Your task to perform on an android device: Go to Reddit.com Image 0: 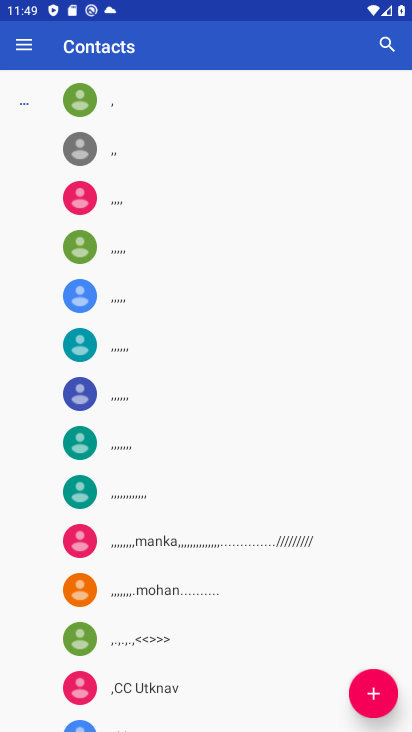
Step 0: press home button
Your task to perform on an android device: Go to Reddit.com Image 1: 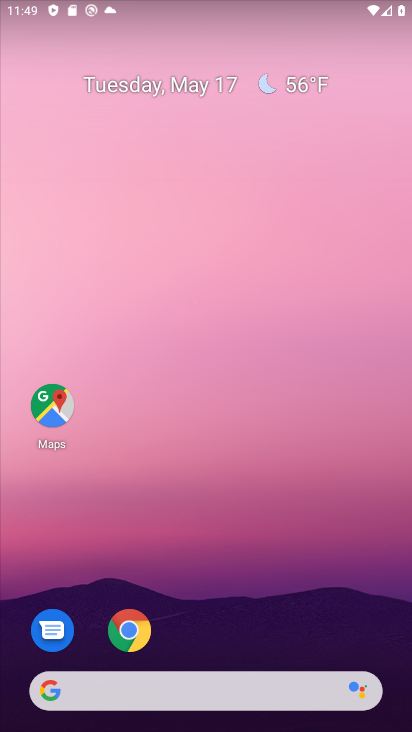
Step 1: click (129, 631)
Your task to perform on an android device: Go to Reddit.com Image 2: 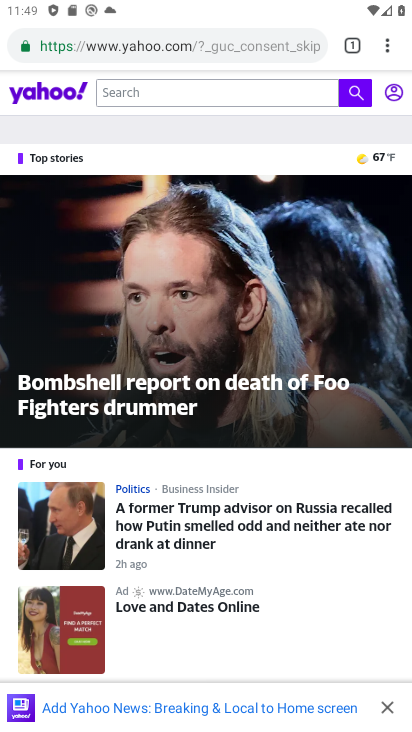
Step 2: click (387, 49)
Your task to perform on an android device: Go to Reddit.com Image 3: 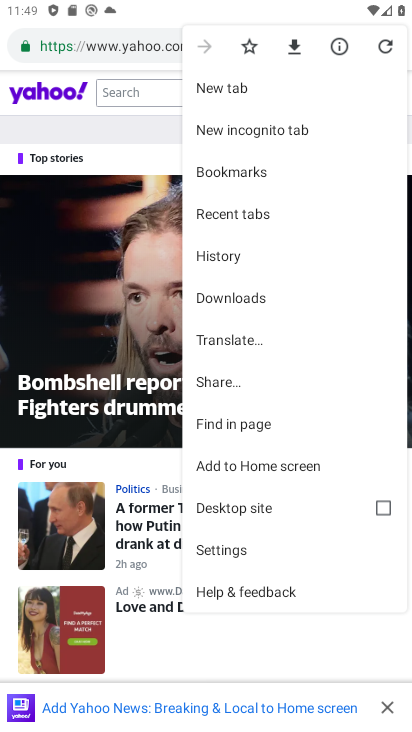
Step 3: click (225, 82)
Your task to perform on an android device: Go to Reddit.com Image 4: 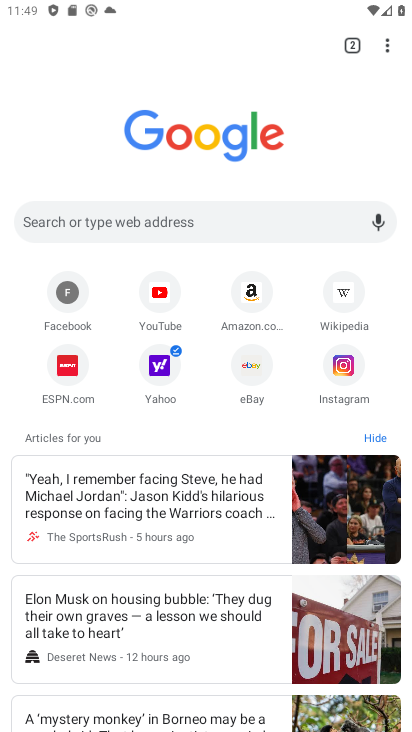
Step 4: click (161, 221)
Your task to perform on an android device: Go to Reddit.com Image 5: 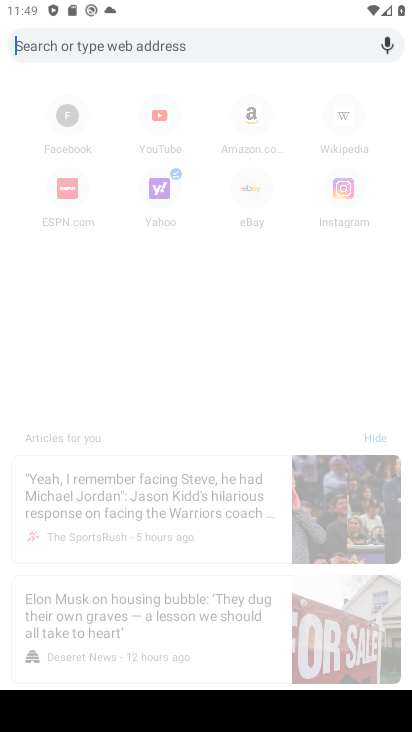
Step 5: type "Reddit.com"
Your task to perform on an android device: Go to Reddit.com Image 6: 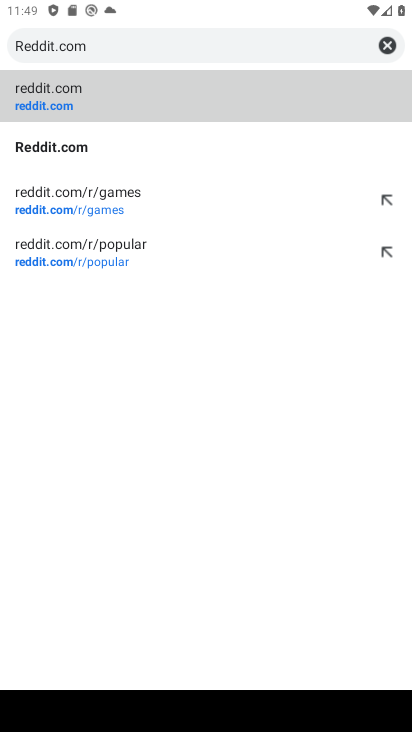
Step 6: click (169, 95)
Your task to perform on an android device: Go to Reddit.com Image 7: 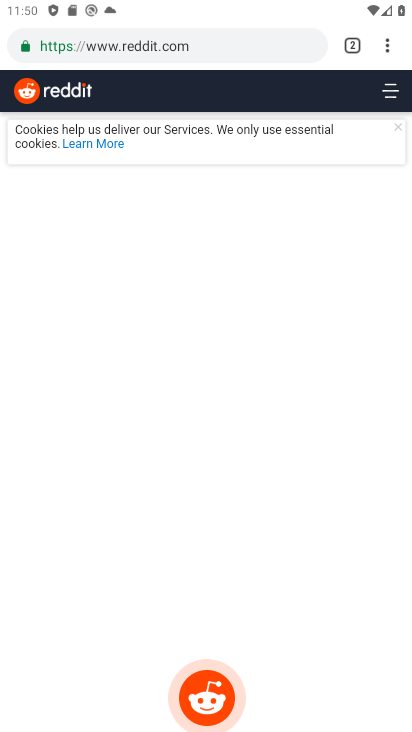
Step 7: task complete